Your task to perform on an android device: turn pop-ups off in chrome Image 0: 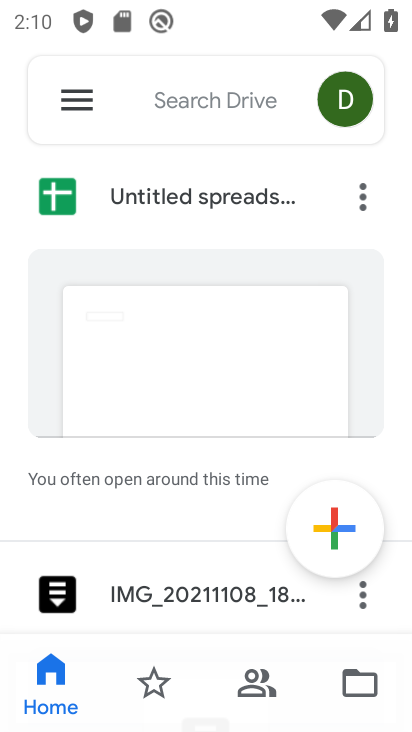
Step 0: press home button
Your task to perform on an android device: turn pop-ups off in chrome Image 1: 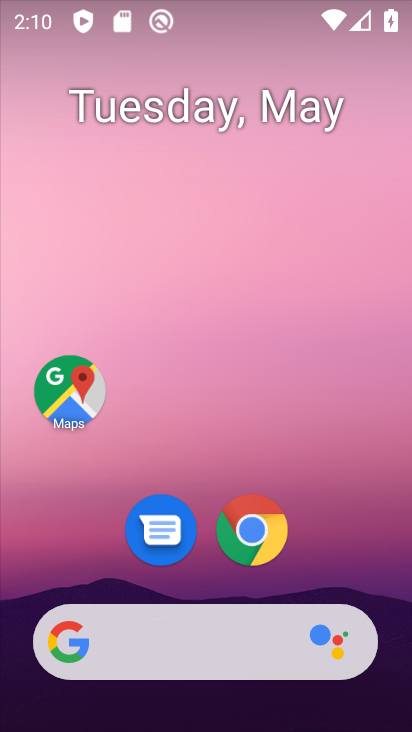
Step 1: click (263, 528)
Your task to perform on an android device: turn pop-ups off in chrome Image 2: 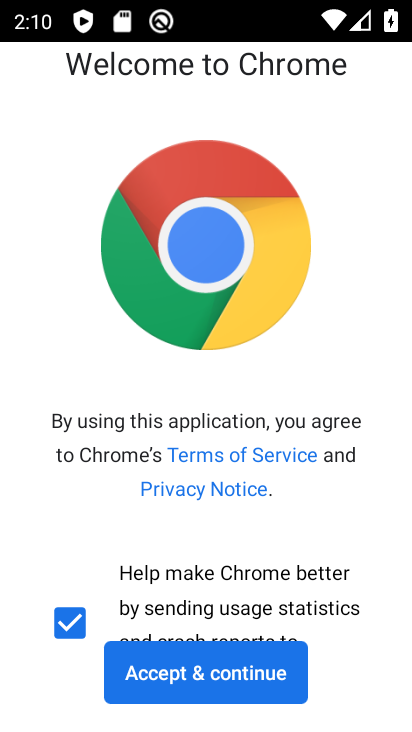
Step 2: click (196, 694)
Your task to perform on an android device: turn pop-ups off in chrome Image 3: 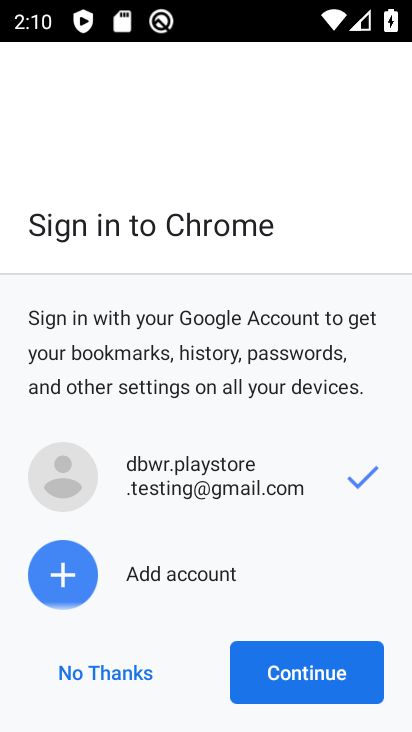
Step 3: click (73, 675)
Your task to perform on an android device: turn pop-ups off in chrome Image 4: 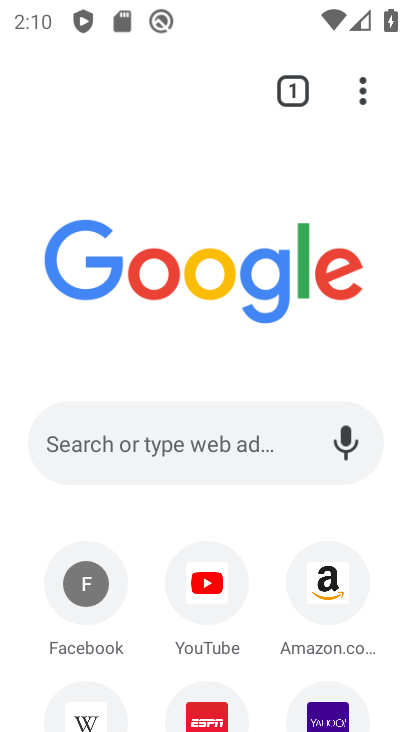
Step 4: click (357, 92)
Your task to perform on an android device: turn pop-ups off in chrome Image 5: 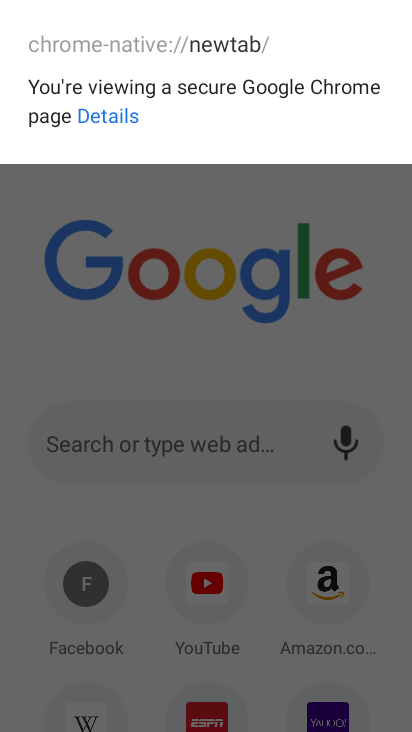
Step 5: press back button
Your task to perform on an android device: turn pop-ups off in chrome Image 6: 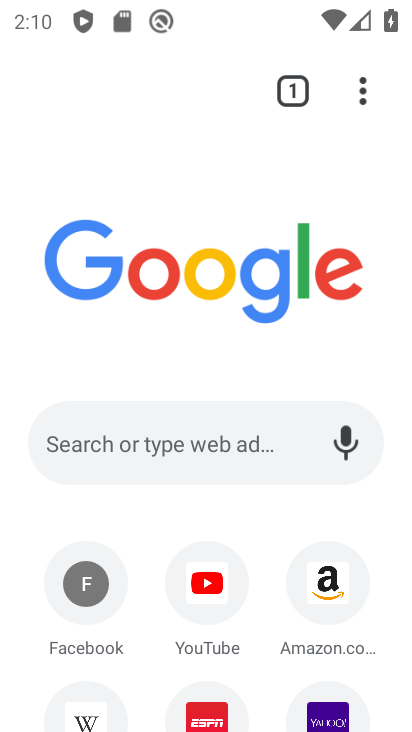
Step 6: click (360, 92)
Your task to perform on an android device: turn pop-ups off in chrome Image 7: 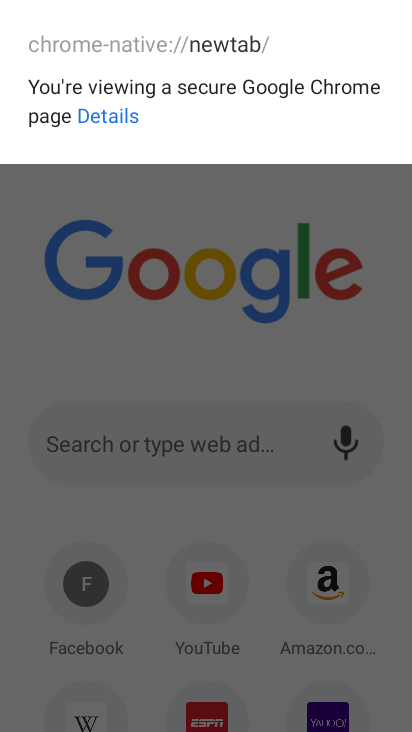
Step 7: press back button
Your task to perform on an android device: turn pop-ups off in chrome Image 8: 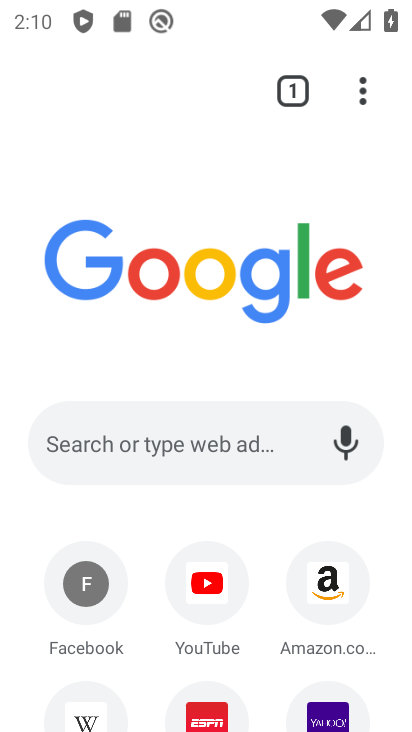
Step 8: click (366, 82)
Your task to perform on an android device: turn pop-ups off in chrome Image 9: 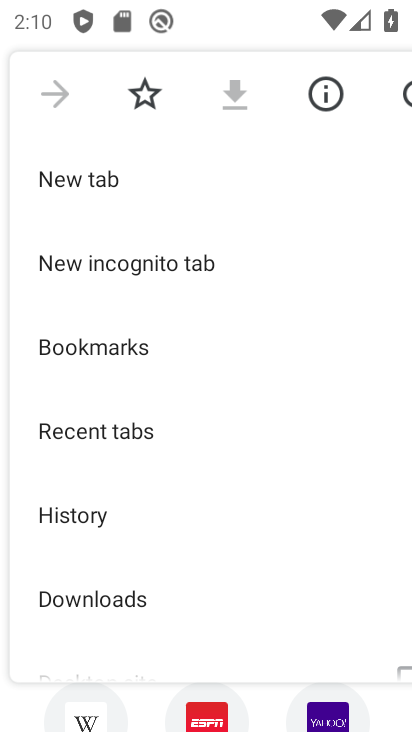
Step 9: drag from (7, 523) to (166, 84)
Your task to perform on an android device: turn pop-ups off in chrome Image 10: 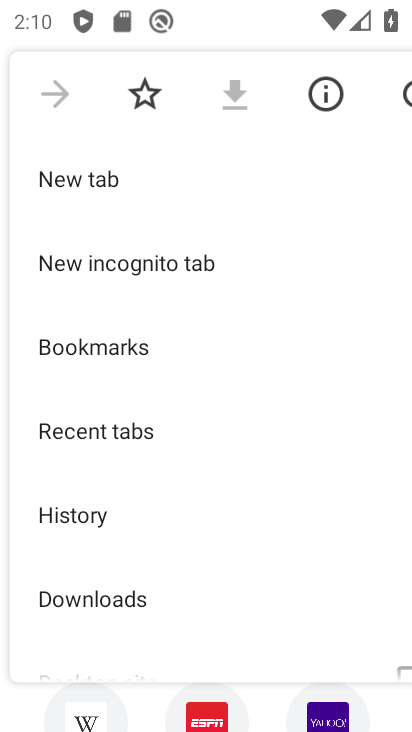
Step 10: drag from (29, 558) to (205, 195)
Your task to perform on an android device: turn pop-ups off in chrome Image 11: 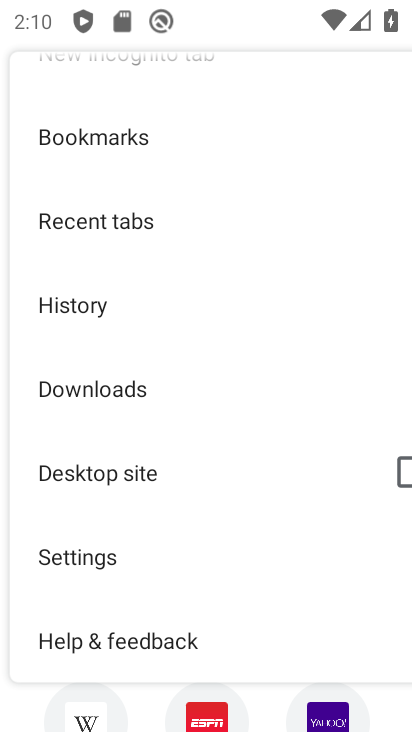
Step 11: click (91, 553)
Your task to perform on an android device: turn pop-ups off in chrome Image 12: 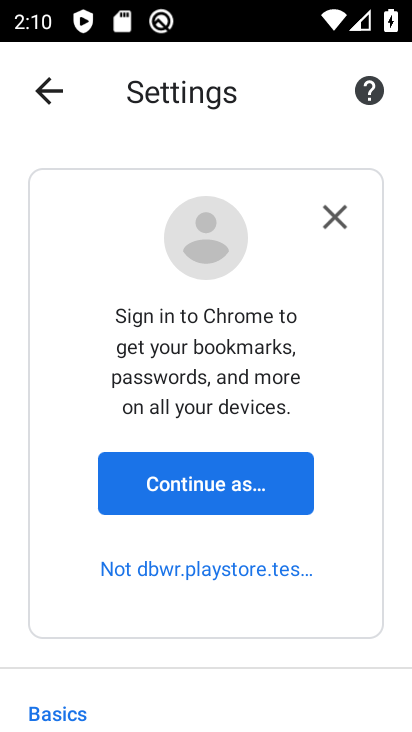
Step 12: click (328, 215)
Your task to perform on an android device: turn pop-ups off in chrome Image 13: 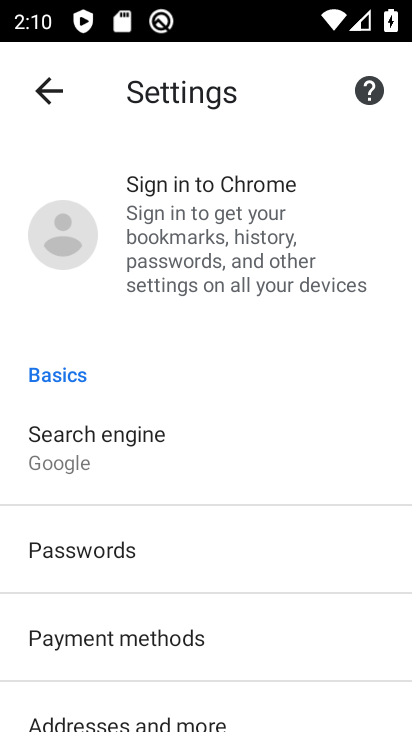
Step 13: drag from (7, 577) to (206, 155)
Your task to perform on an android device: turn pop-ups off in chrome Image 14: 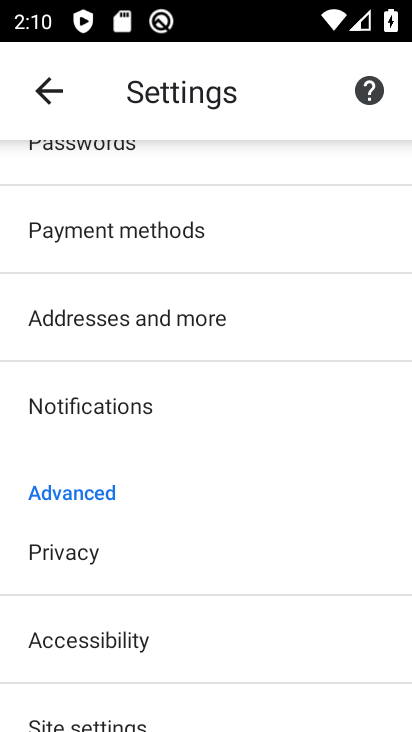
Step 14: click (46, 720)
Your task to perform on an android device: turn pop-ups off in chrome Image 15: 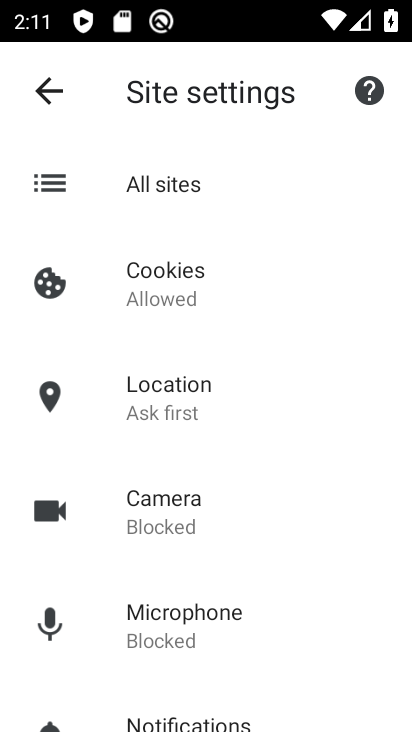
Step 15: drag from (92, 675) to (253, 191)
Your task to perform on an android device: turn pop-ups off in chrome Image 16: 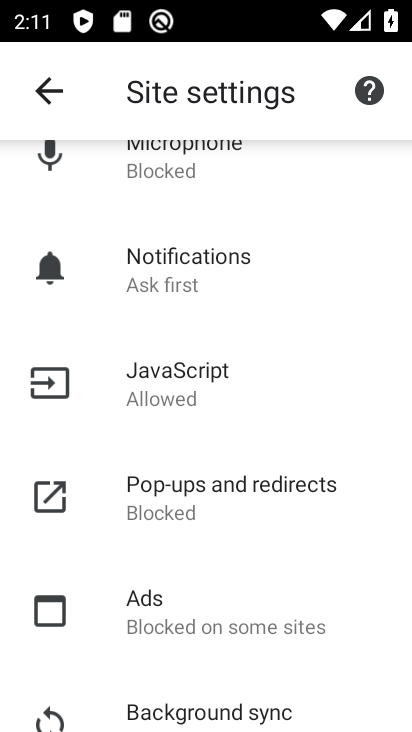
Step 16: drag from (28, 716) to (149, 350)
Your task to perform on an android device: turn pop-ups off in chrome Image 17: 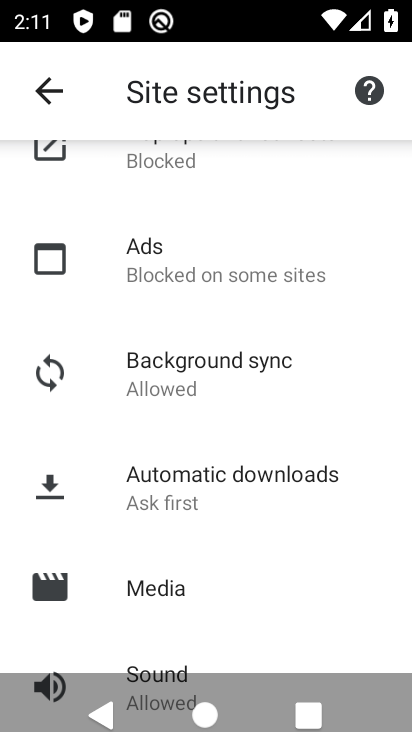
Step 17: drag from (188, 213) to (161, 478)
Your task to perform on an android device: turn pop-ups off in chrome Image 18: 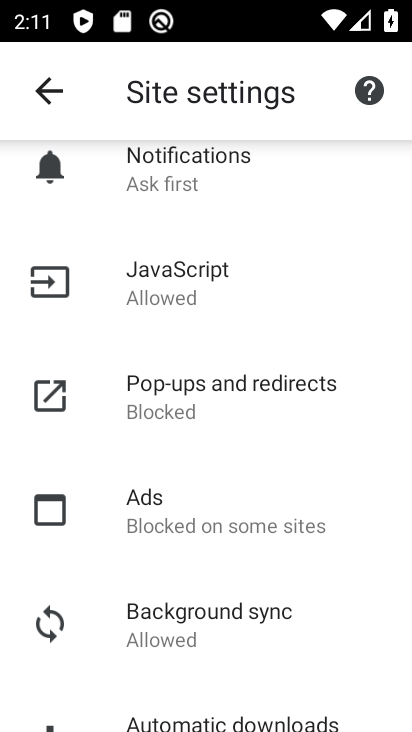
Step 18: click (166, 412)
Your task to perform on an android device: turn pop-ups off in chrome Image 19: 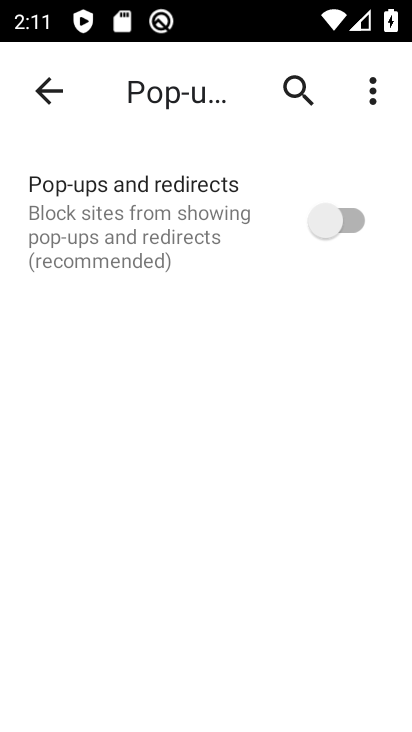
Step 19: task complete